Your task to perform on an android device: Is it going to rain this weekend? Image 0: 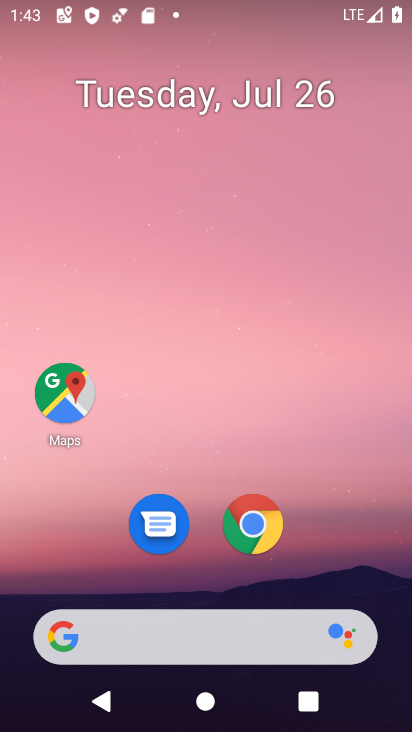
Step 0: click (197, 649)
Your task to perform on an android device: Is it going to rain this weekend? Image 1: 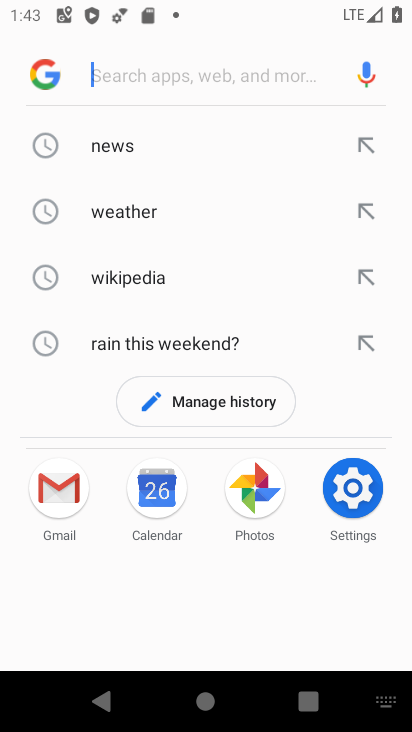
Step 1: click (123, 202)
Your task to perform on an android device: Is it going to rain this weekend? Image 2: 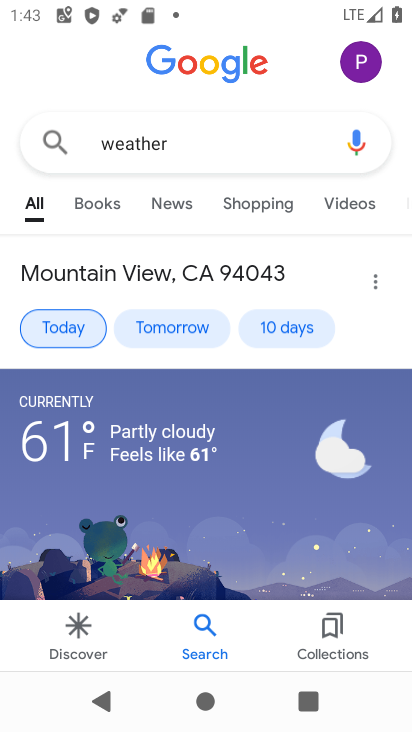
Step 2: click (290, 321)
Your task to perform on an android device: Is it going to rain this weekend? Image 3: 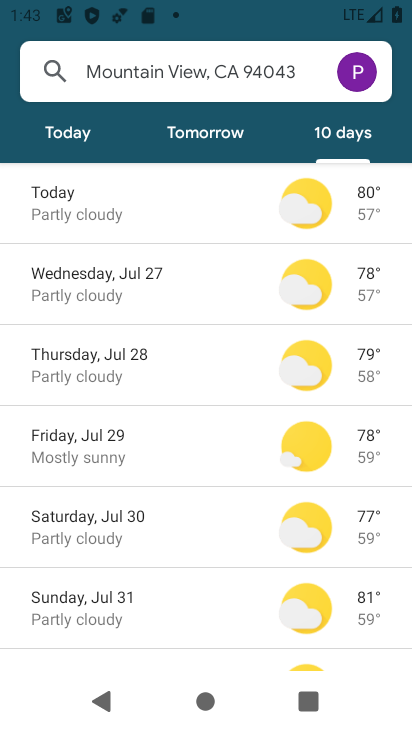
Step 3: click (122, 514)
Your task to perform on an android device: Is it going to rain this weekend? Image 4: 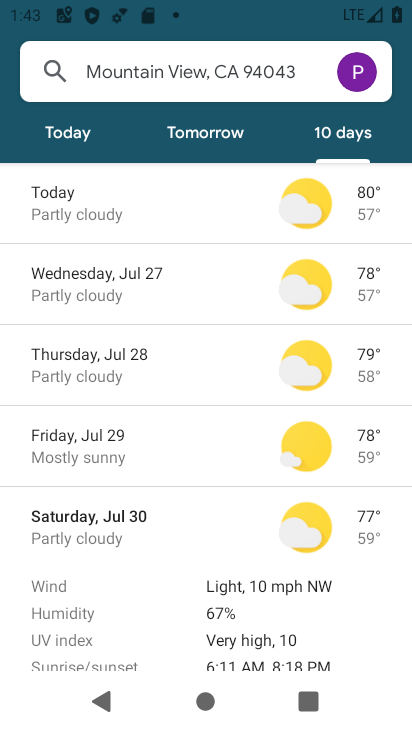
Step 4: task complete